Your task to perform on an android device: install app "Upside-Cash back on gas & food" Image 0: 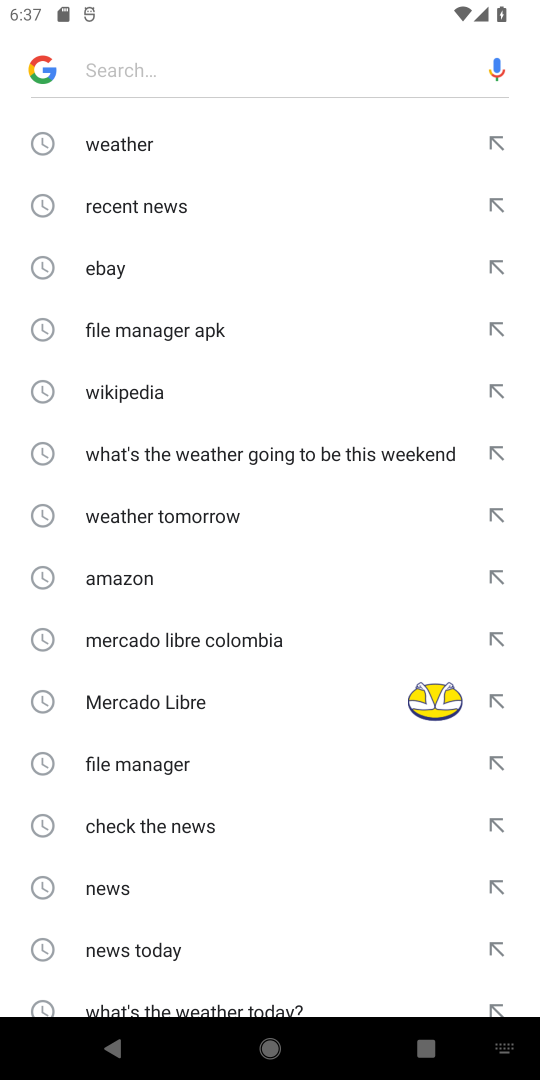
Step 0: press home button
Your task to perform on an android device: install app "Upside-Cash back on gas & food" Image 1: 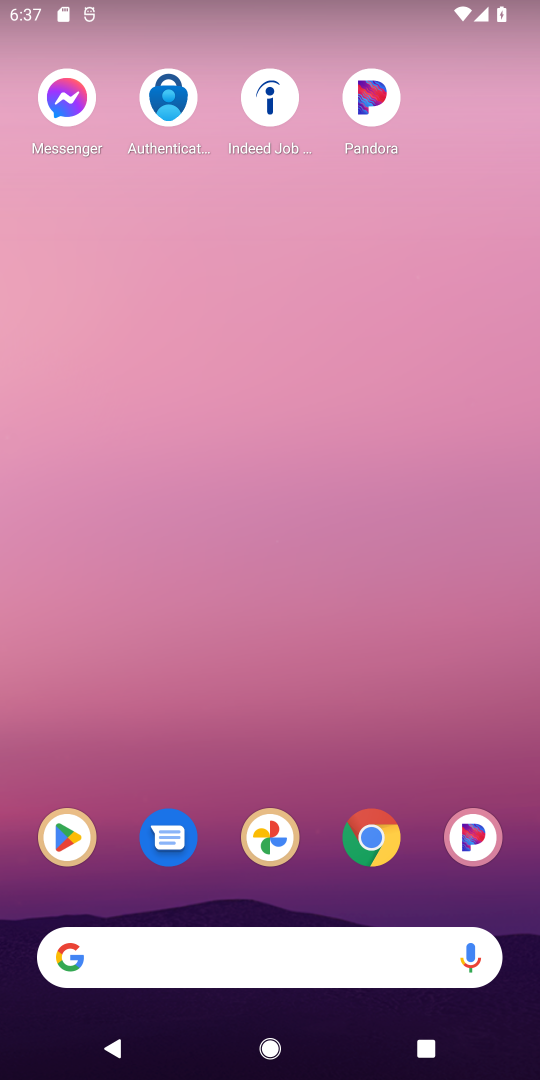
Step 1: click (55, 857)
Your task to perform on an android device: install app "Upside-Cash back on gas & food" Image 2: 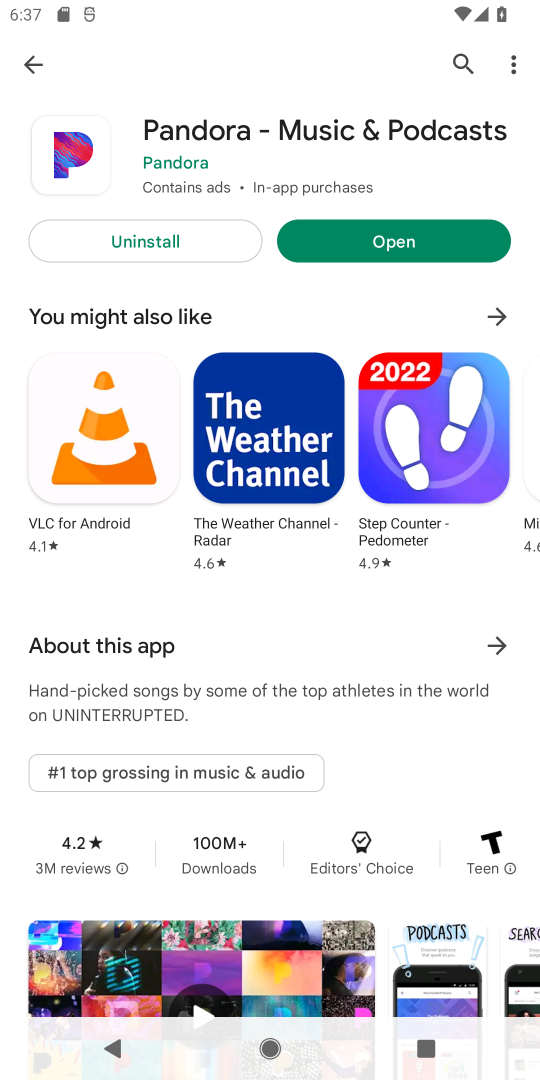
Step 2: click (462, 75)
Your task to perform on an android device: install app "Upside-Cash back on gas & food" Image 3: 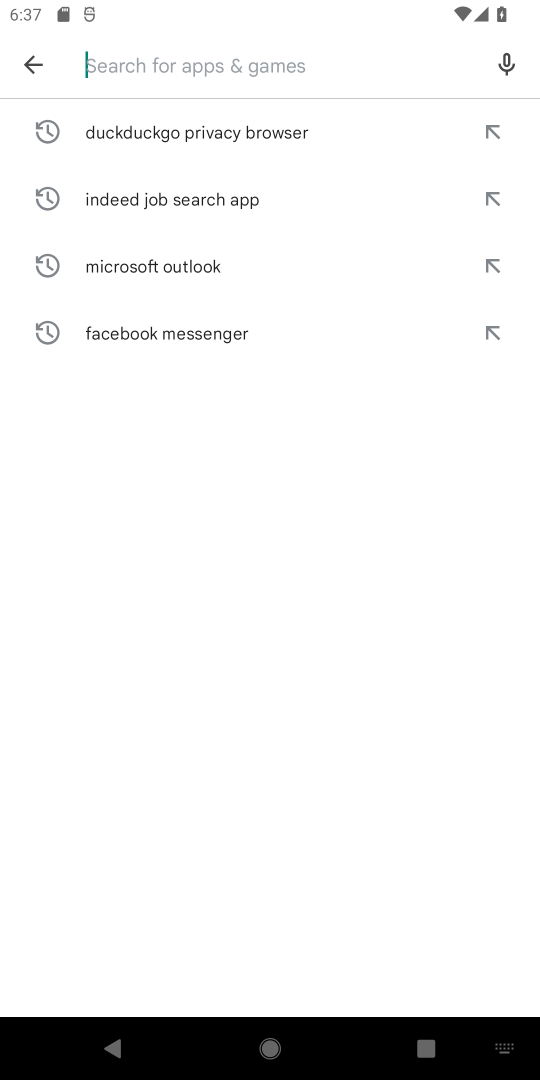
Step 3: type "Upside-Cash back on gas & food"
Your task to perform on an android device: install app "Upside-Cash back on gas & food" Image 4: 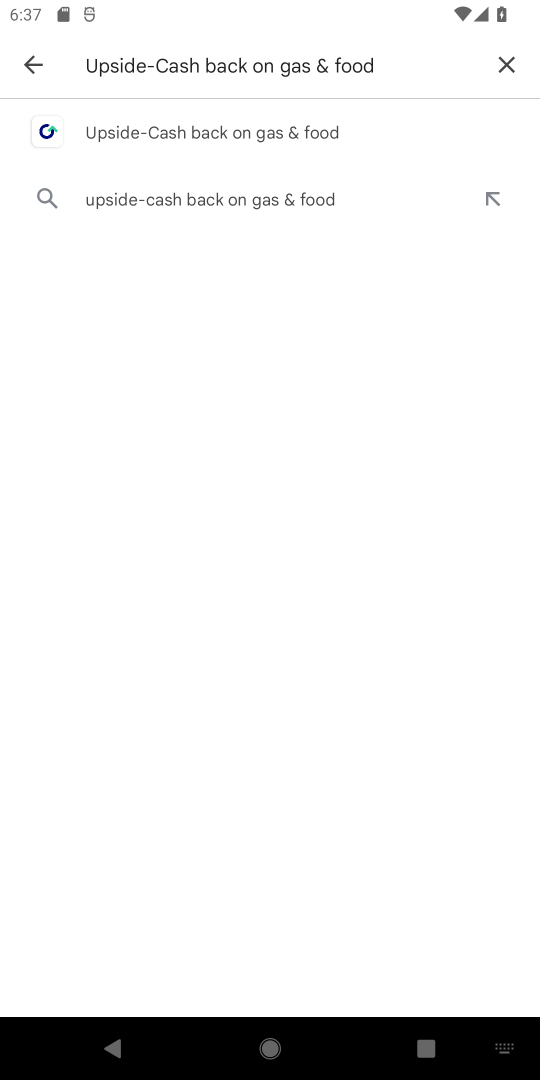
Step 4: click (181, 140)
Your task to perform on an android device: install app "Upside-Cash back on gas & food" Image 5: 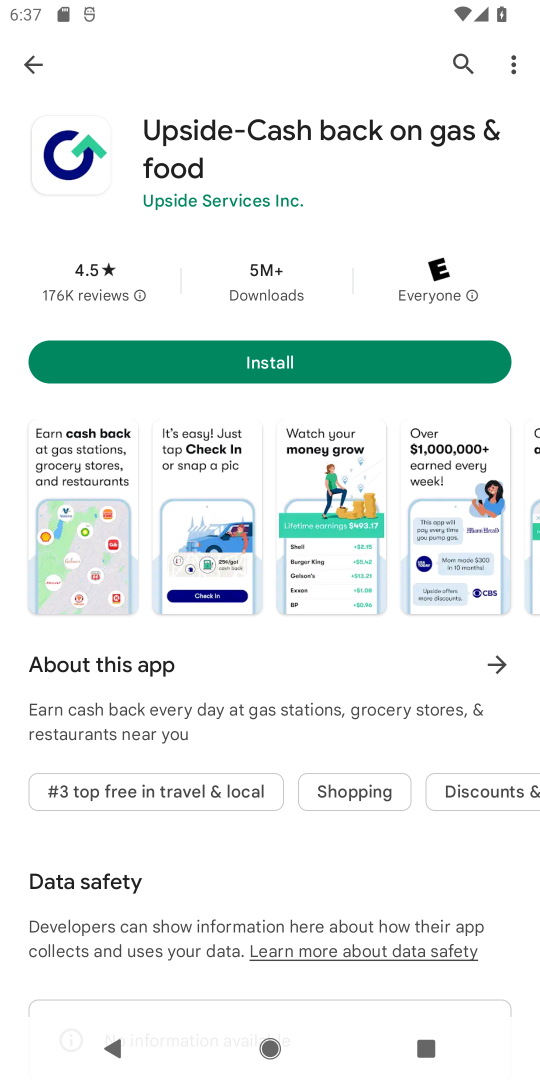
Step 5: click (248, 374)
Your task to perform on an android device: install app "Upside-Cash back on gas & food" Image 6: 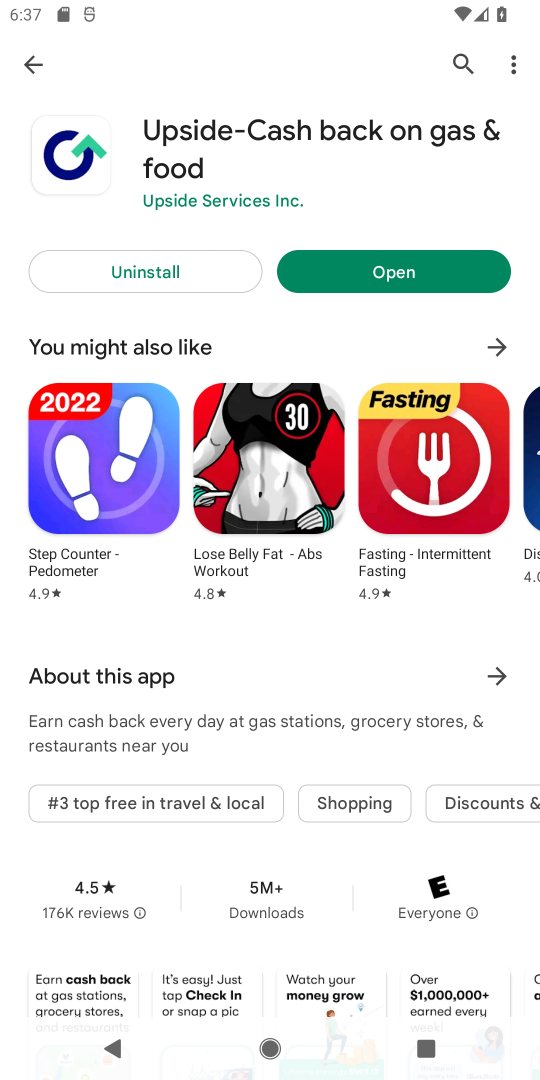
Step 6: task complete